Your task to perform on an android device: Open Google Chrome and click the shortcut for Amazon.com Image 0: 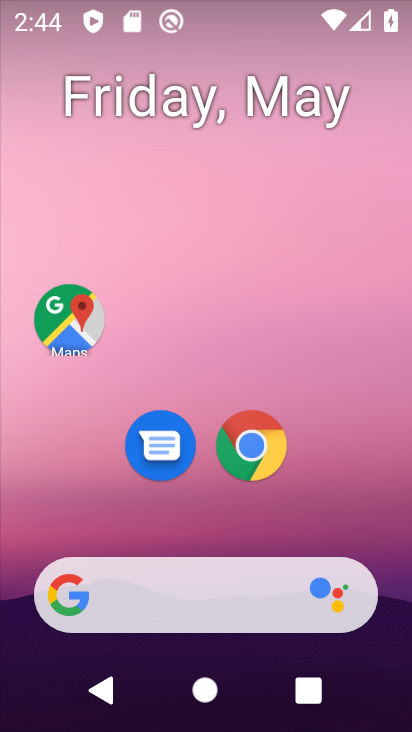
Step 0: drag from (253, 587) to (140, 147)
Your task to perform on an android device: Open Google Chrome and click the shortcut for Amazon.com Image 1: 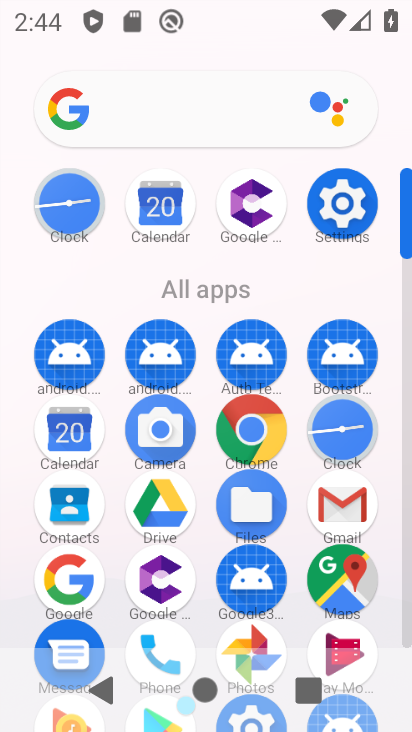
Step 1: click (264, 450)
Your task to perform on an android device: Open Google Chrome and click the shortcut for Amazon.com Image 2: 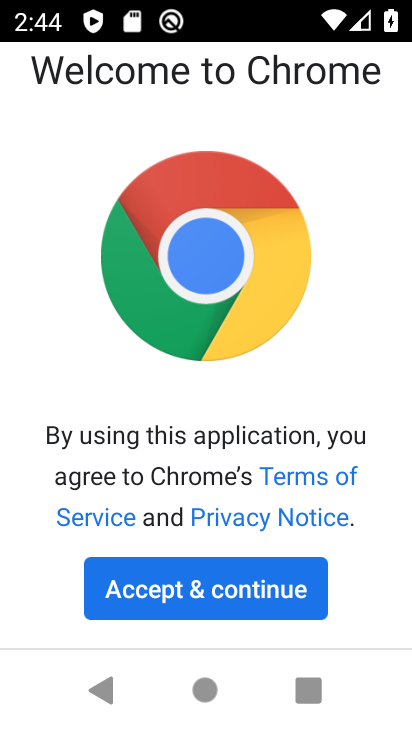
Step 2: click (248, 595)
Your task to perform on an android device: Open Google Chrome and click the shortcut for Amazon.com Image 3: 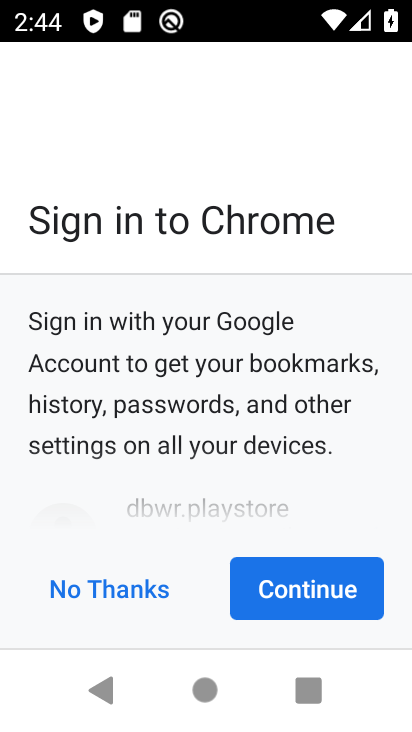
Step 3: click (305, 603)
Your task to perform on an android device: Open Google Chrome and click the shortcut for Amazon.com Image 4: 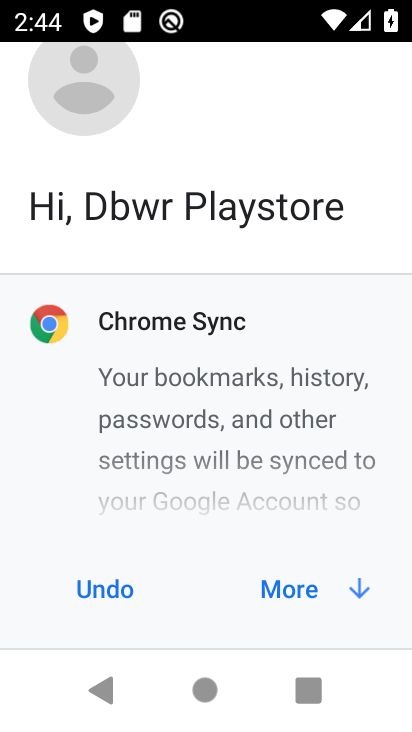
Step 4: click (306, 598)
Your task to perform on an android device: Open Google Chrome and click the shortcut for Amazon.com Image 5: 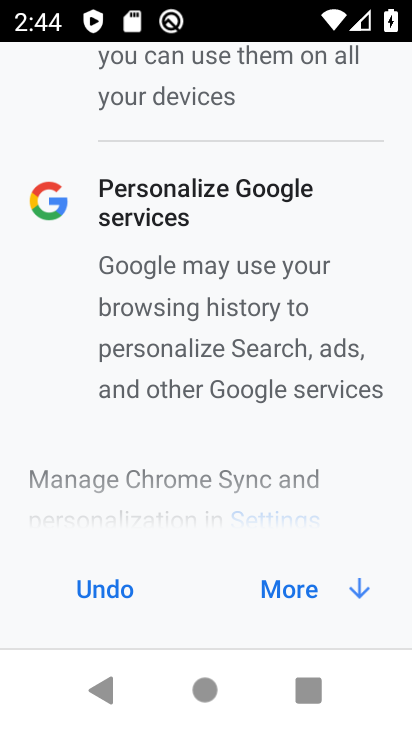
Step 5: click (308, 597)
Your task to perform on an android device: Open Google Chrome and click the shortcut for Amazon.com Image 6: 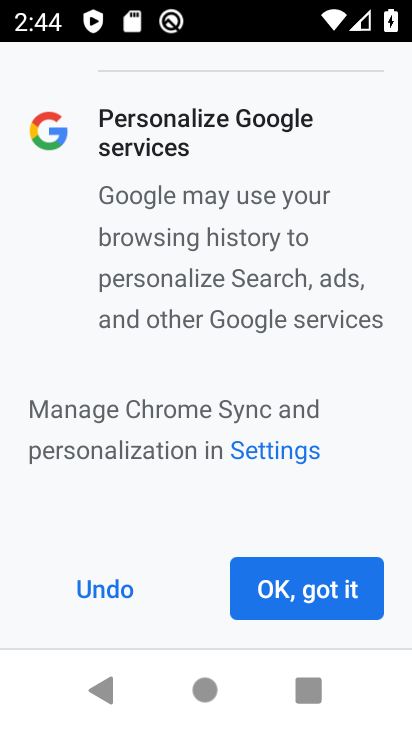
Step 6: click (308, 596)
Your task to perform on an android device: Open Google Chrome and click the shortcut for Amazon.com Image 7: 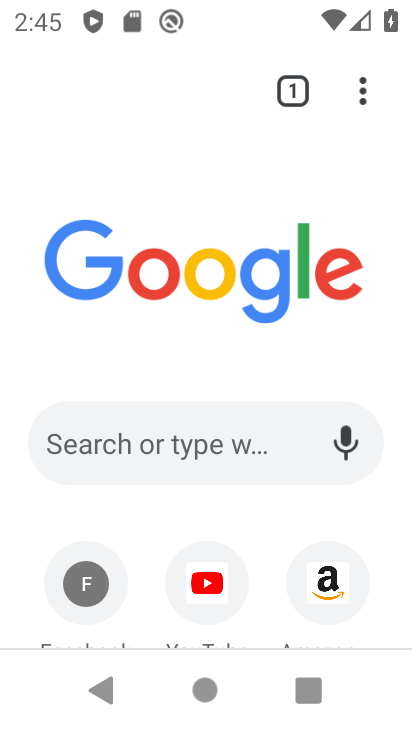
Step 7: click (297, 591)
Your task to perform on an android device: Open Google Chrome and click the shortcut for Amazon.com Image 8: 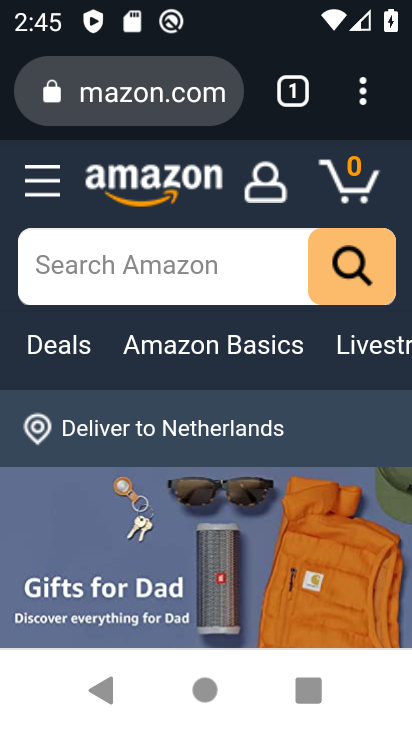
Step 8: task complete